Your task to perform on an android device: Open calendar and show me the fourth week of next month Image 0: 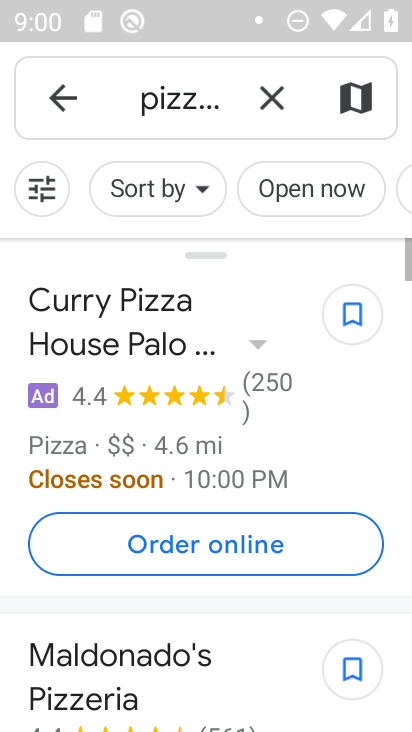
Step 0: press home button
Your task to perform on an android device: Open calendar and show me the fourth week of next month Image 1: 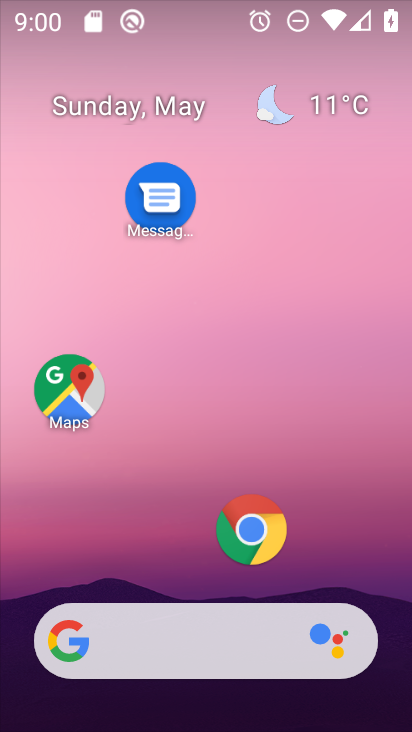
Step 1: drag from (205, 572) to (218, 113)
Your task to perform on an android device: Open calendar and show me the fourth week of next month Image 2: 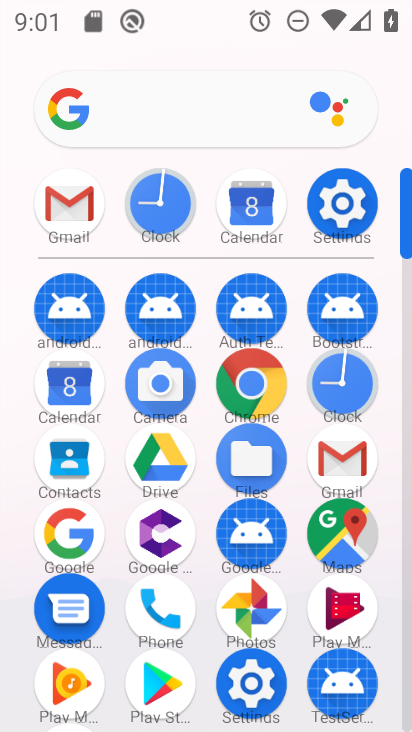
Step 2: click (68, 380)
Your task to perform on an android device: Open calendar and show me the fourth week of next month Image 3: 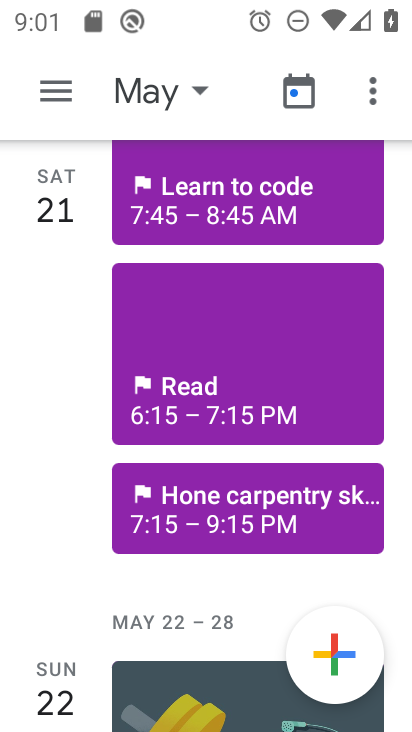
Step 3: click (50, 93)
Your task to perform on an android device: Open calendar and show me the fourth week of next month Image 4: 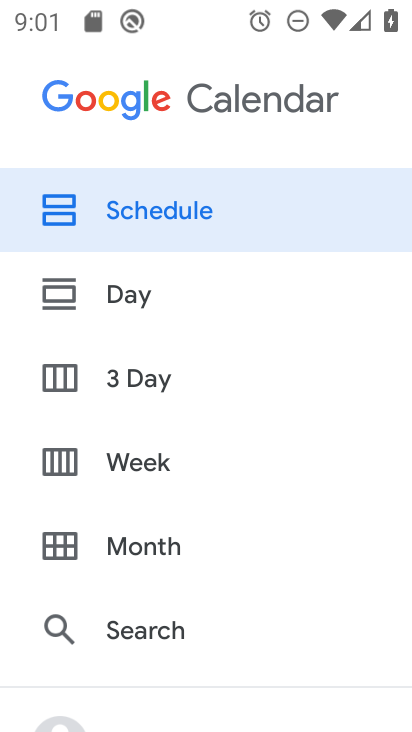
Step 4: click (97, 457)
Your task to perform on an android device: Open calendar and show me the fourth week of next month Image 5: 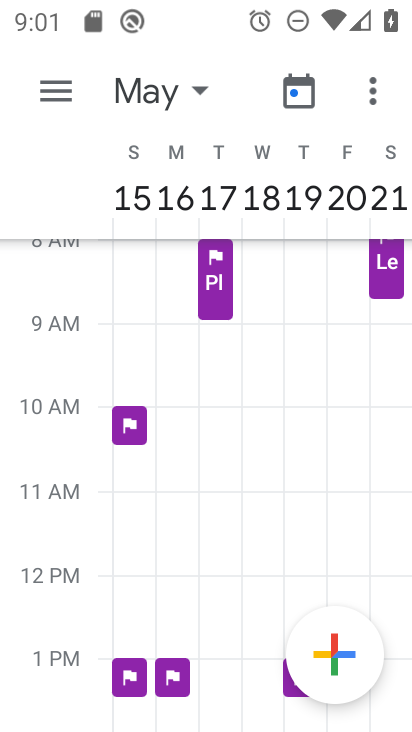
Step 5: drag from (381, 190) to (155, 190)
Your task to perform on an android device: Open calendar and show me the fourth week of next month Image 6: 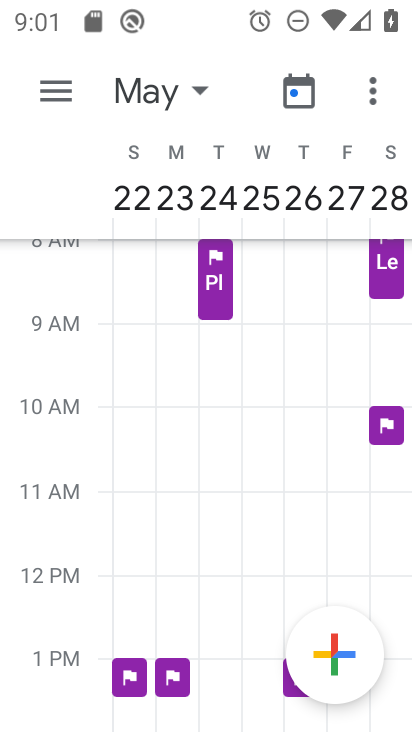
Step 6: drag from (365, 198) to (120, 194)
Your task to perform on an android device: Open calendar and show me the fourth week of next month Image 7: 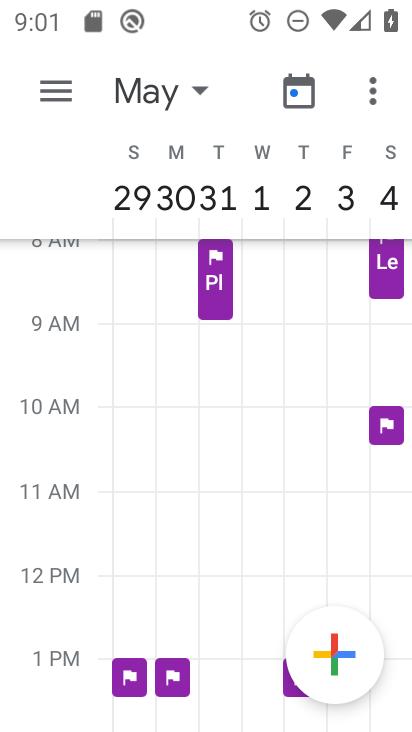
Step 7: drag from (394, 195) to (65, 187)
Your task to perform on an android device: Open calendar and show me the fourth week of next month Image 8: 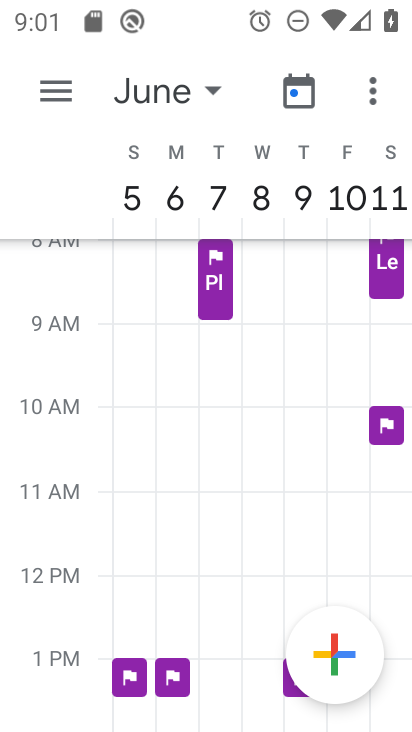
Step 8: drag from (381, 190) to (35, 186)
Your task to perform on an android device: Open calendar and show me the fourth week of next month Image 9: 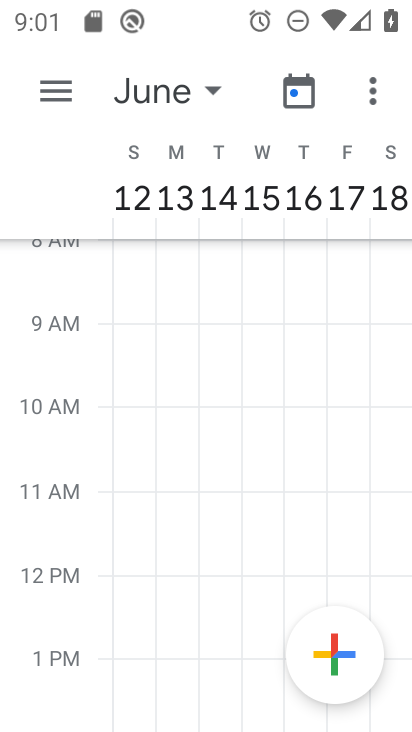
Step 9: drag from (399, 208) to (82, 198)
Your task to perform on an android device: Open calendar and show me the fourth week of next month Image 10: 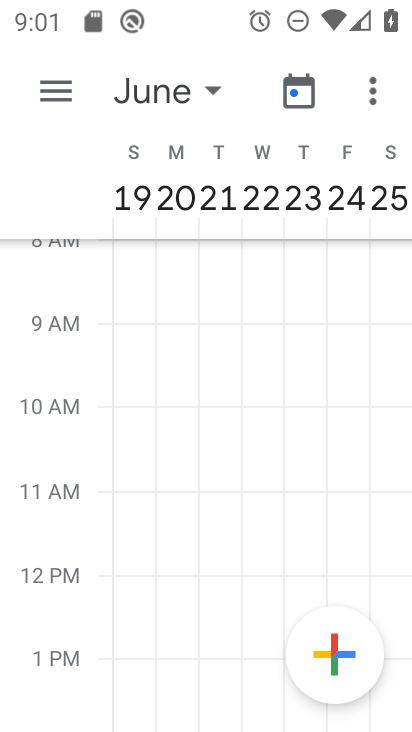
Step 10: click (129, 193)
Your task to perform on an android device: Open calendar and show me the fourth week of next month Image 11: 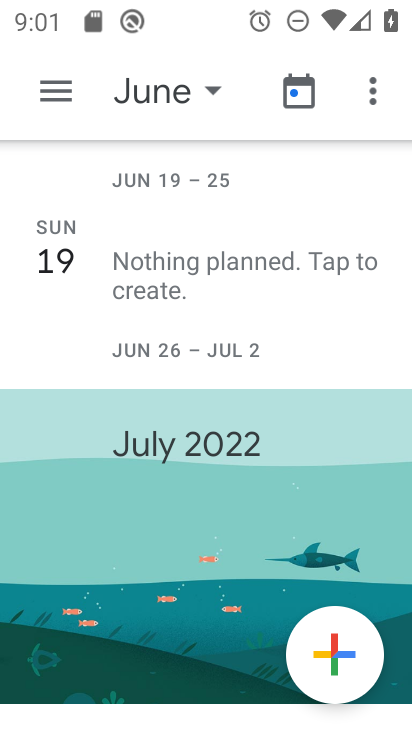
Step 11: task complete